Your task to perform on an android device: turn pop-ups on in chrome Image 0: 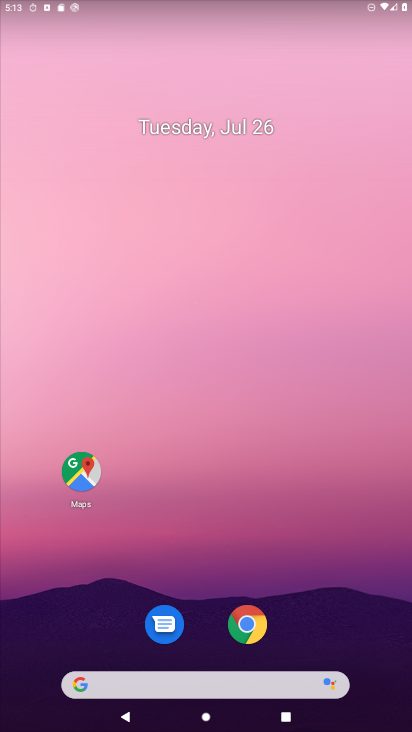
Step 0: drag from (290, 685) to (262, 18)
Your task to perform on an android device: turn pop-ups on in chrome Image 1: 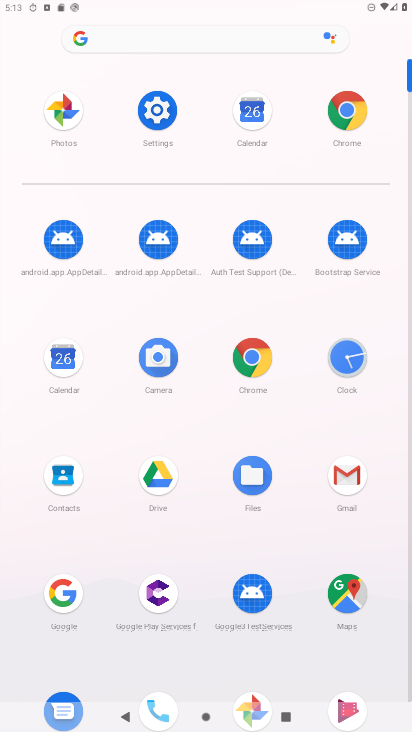
Step 1: click (257, 366)
Your task to perform on an android device: turn pop-ups on in chrome Image 2: 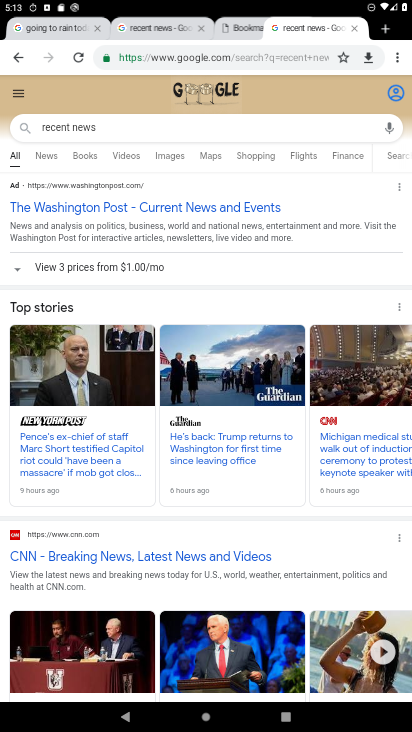
Step 2: click (395, 52)
Your task to perform on an android device: turn pop-ups on in chrome Image 3: 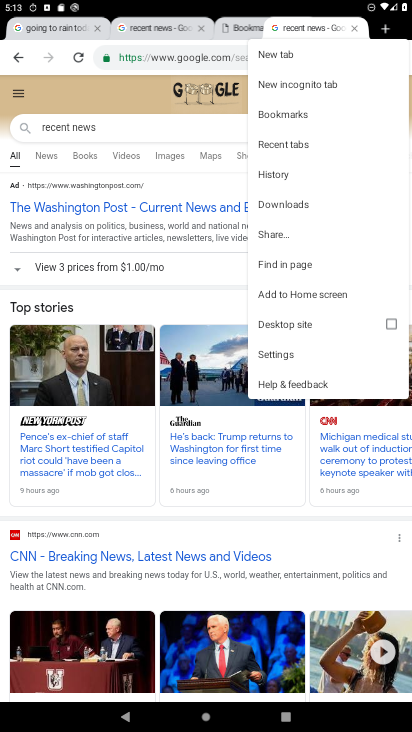
Step 3: click (297, 354)
Your task to perform on an android device: turn pop-ups on in chrome Image 4: 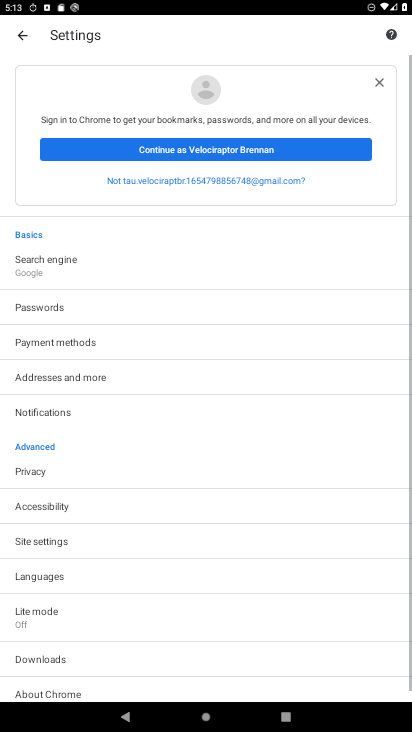
Step 4: drag from (83, 564) to (124, 358)
Your task to perform on an android device: turn pop-ups on in chrome Image 5: 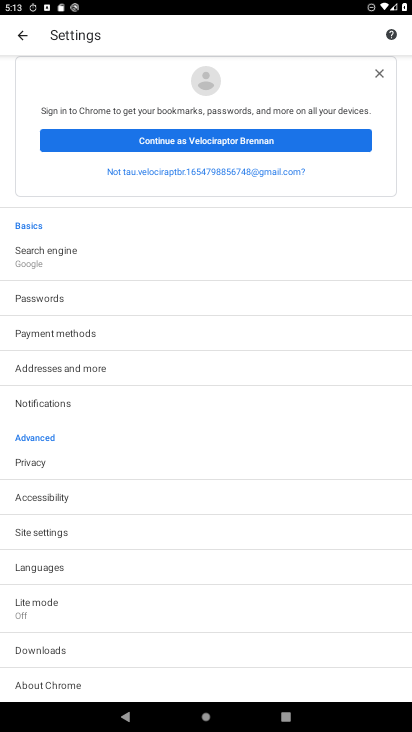
Step 5: click (72, 535)
Your task to perform on an android device: turn pop-ups on in chrome Image 6: 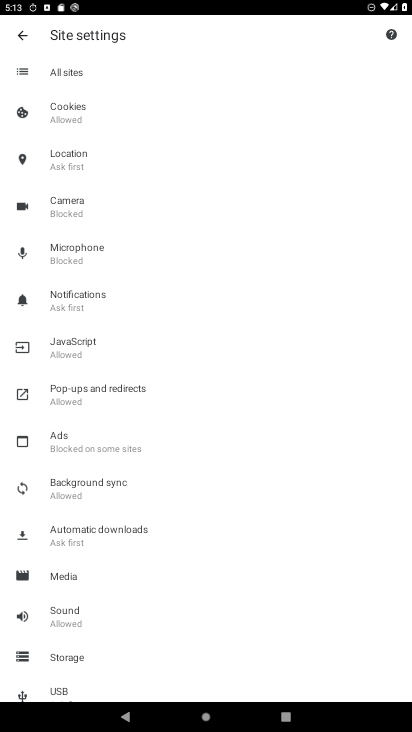
Step 6: click (113, 400)
Your task to perform on an android device: turn pop-ups on in chrome Image 7: 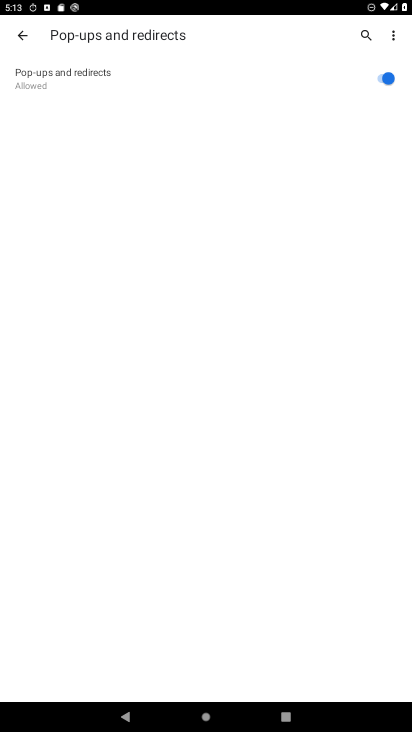
Step 7: task complete